Your task to perform on an android device: see sites visited before in the chrome app Image 0: 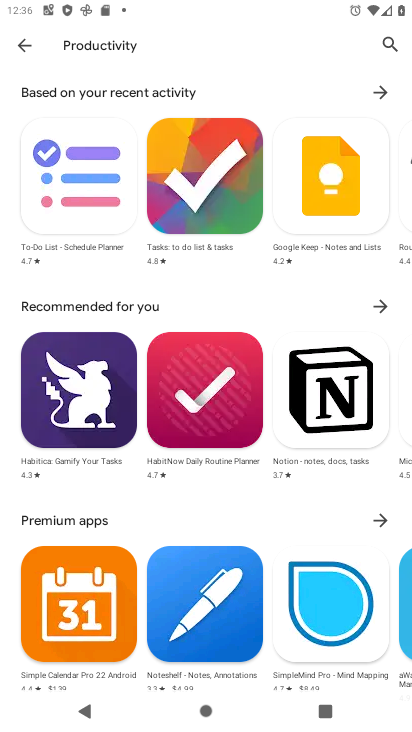
Step 0: press home button
Your task to perform on an android device: see sites visited before in the chrome app Image 1: 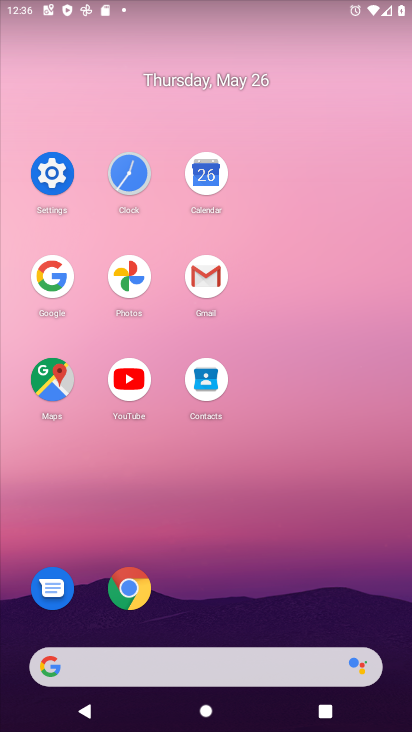
Step 1: click (125, 592)
Your task to perform on an android device: see sites visited before in the chrome app Image 2: 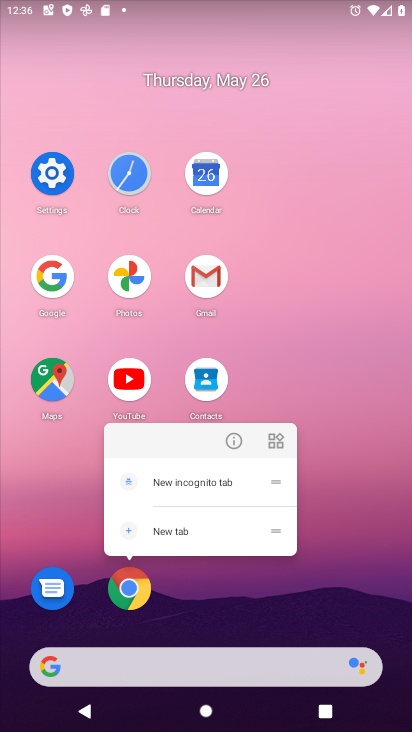
Step 2: click (145, 591)
Your task to perform on an android device: see sites visited before in the chrome app Image 3: 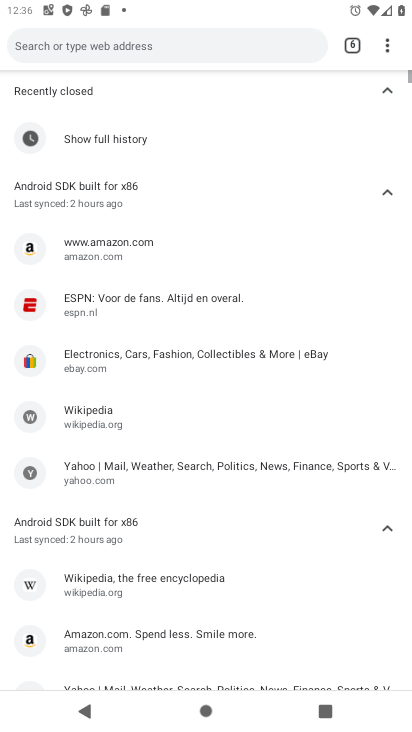
Step 3: click (375, 50)
Your task to perform on an android device: see sites visited before in the chrome app Image 4: 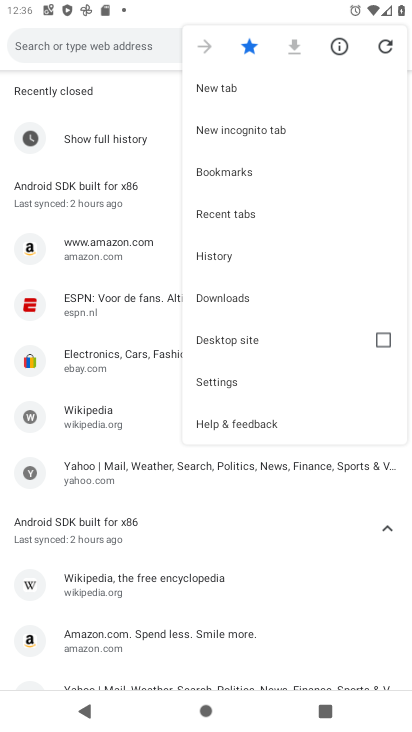
Step 4: click (254, 219)
Your task to perform on an android device: see sites visited before in the chrome app Image 5: 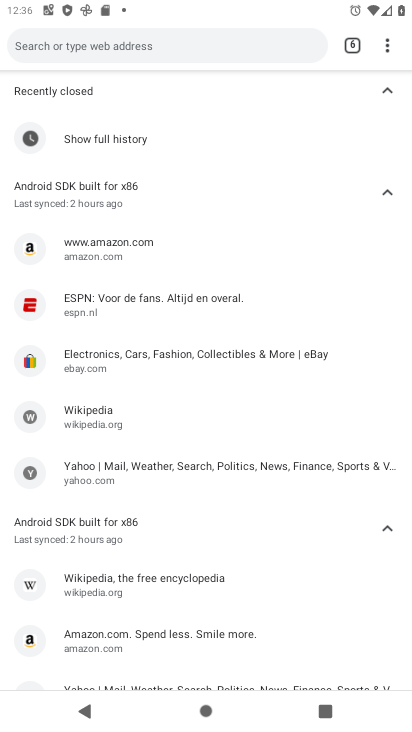
Step 5: task complete